Your task to perform on an android device: Go to Yahoo.com Image 0: 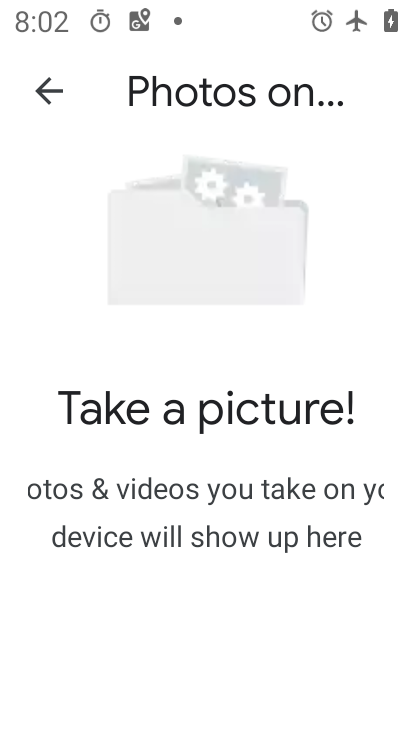
Step 0: press home button
Your task to perform on an android device: Go to Yahoo.com Image 1: 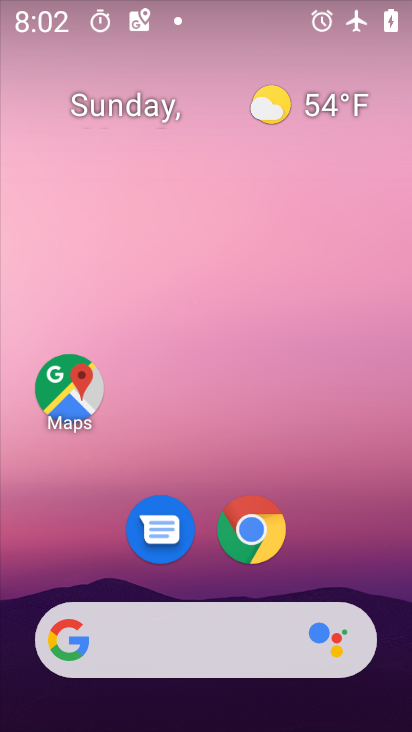
Step 1: click (261, 527)
Your task to perform on an android device: Go to Yahoo.com Image 2: 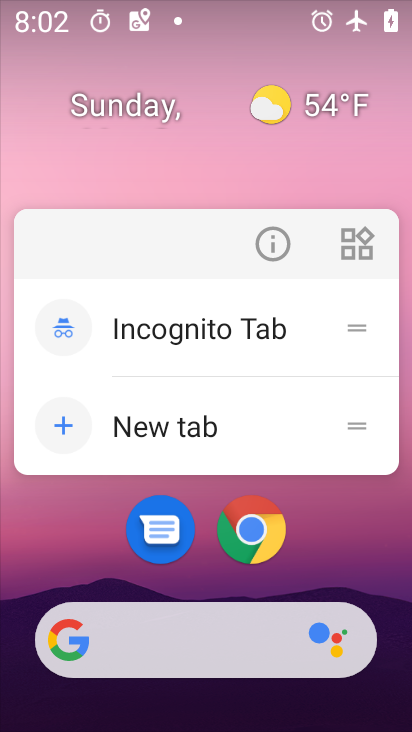
Step 2: click (251, 540)
Your task to perform on an android device: Go to Yahoo.com Image 3: 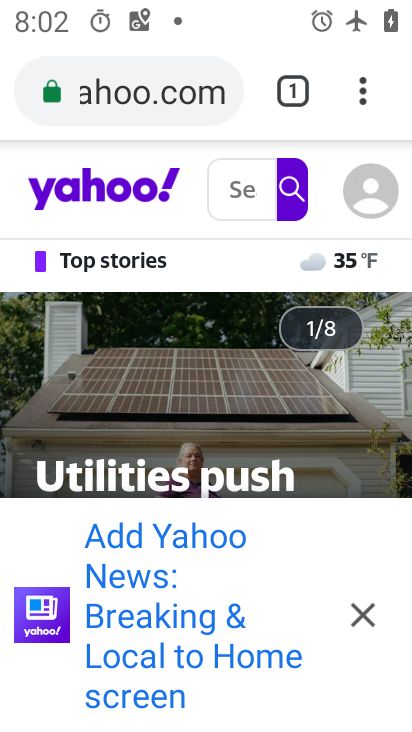
Step 3: click (250, 541)
Your task to perform on an android device: Go to Yahoo.com Image 4: 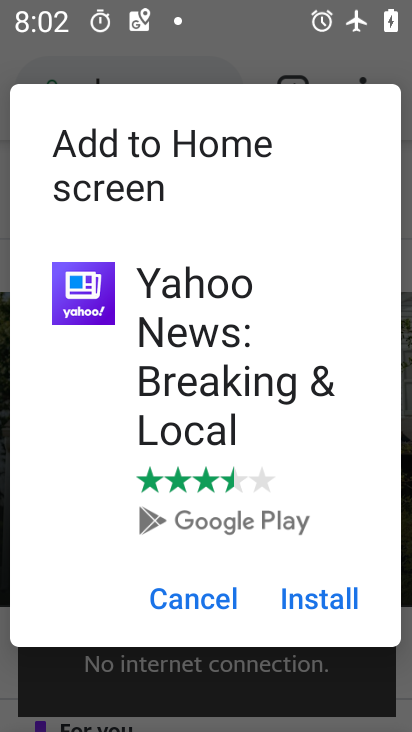
Step 4: click (197, 586)
Your task to perform on an android device: Go to Yahoo.com Image 5: 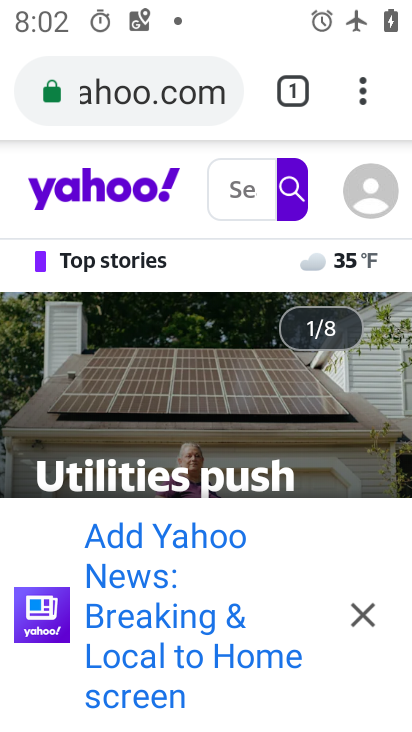
Step 5: click (366, 610)
Your task to perform on an android device: Go to Yahoo.com Image 6: 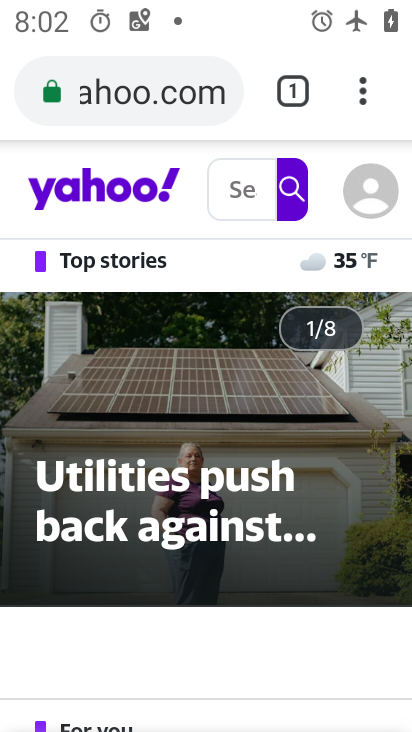
Step 6: task complete